Your task to perform on an android device: change alarm snooze length Image 0: 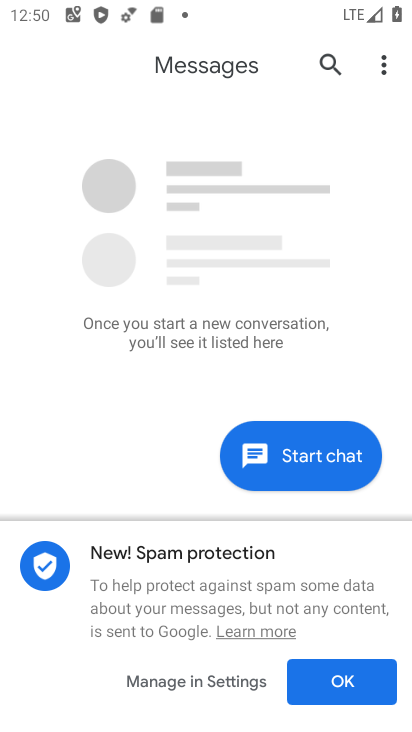
Step 0: press home button
Your task to perform on an android device: change alarm snooze length Image 1: 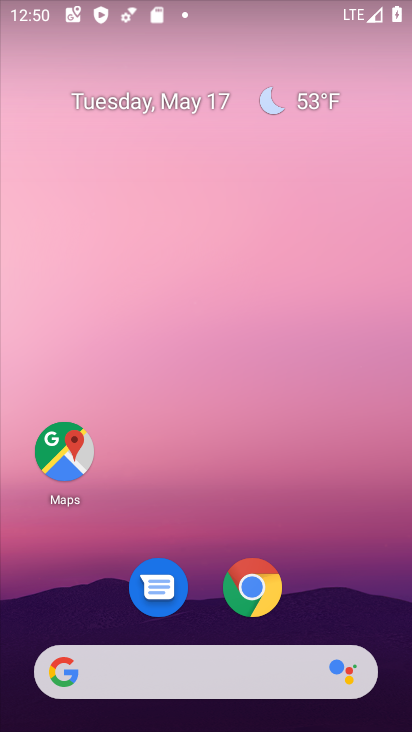
Step 1: drag from (214, 604) to (186, 63)
Your task to perform on an android device: change alarm snooze length Image 2: 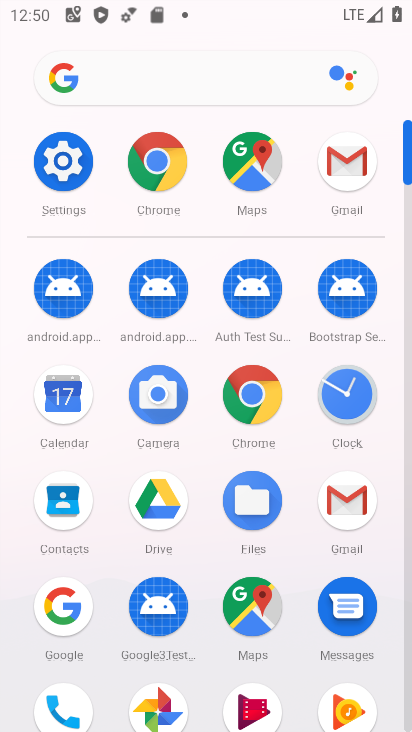
Step 2: click (336, 400)
Your task to perform on an android device: change alarm snooze length Image 3: 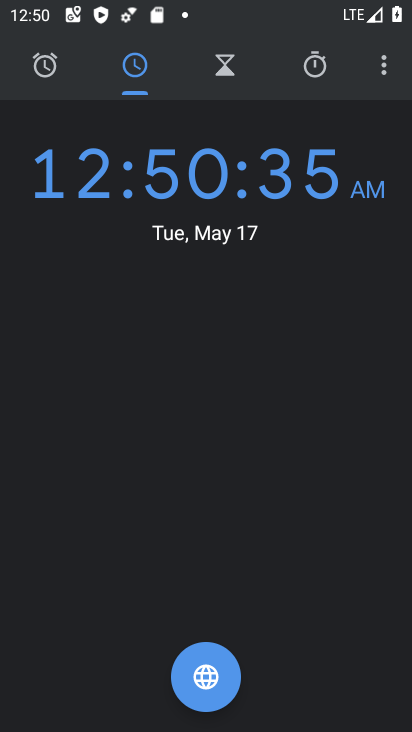
Step 3: click (376, 66)
Your task to perform on an android device: change alarm snooze length Image 4: 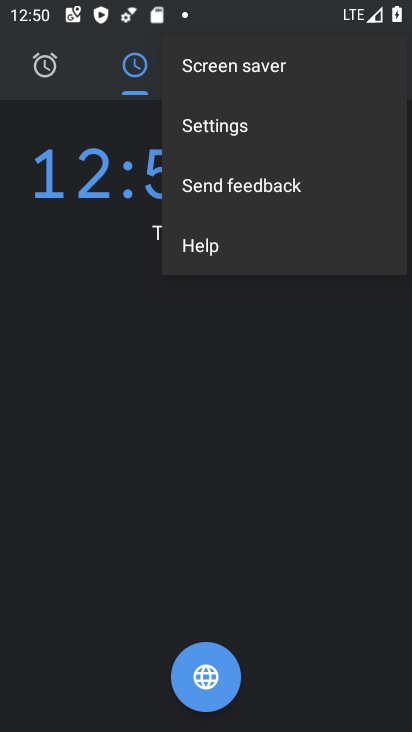
Step 4: click (245, 133)
Your task to perform on an android device: change alarm snooze length Image 5: 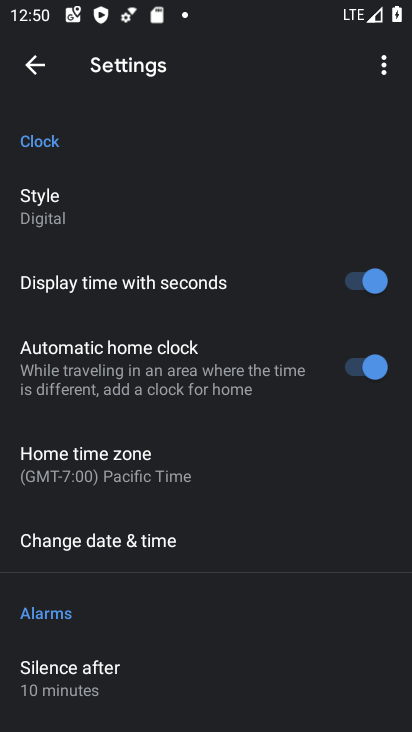
Step 5: drag from (195, 672) to (135, 193)
Your task to perform on an android device: change alarm snooze length Image 6: 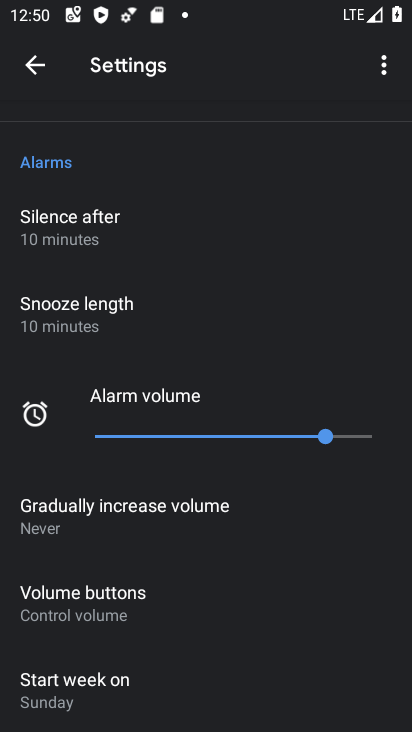
Step 6: drag from (193, 613) to (170, 179)
Your task to perform on an android device: change alarm snooze length Image 7: 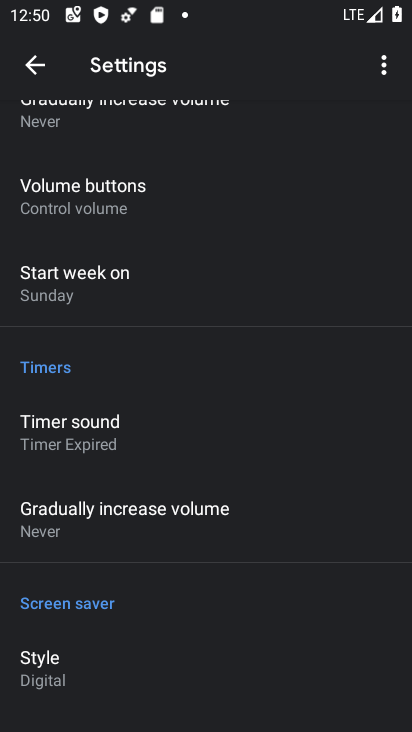
Step 7: drag from (179, 521) to (113, 116)
Your task to perform on an android device: change alarm snooze length Image 8: 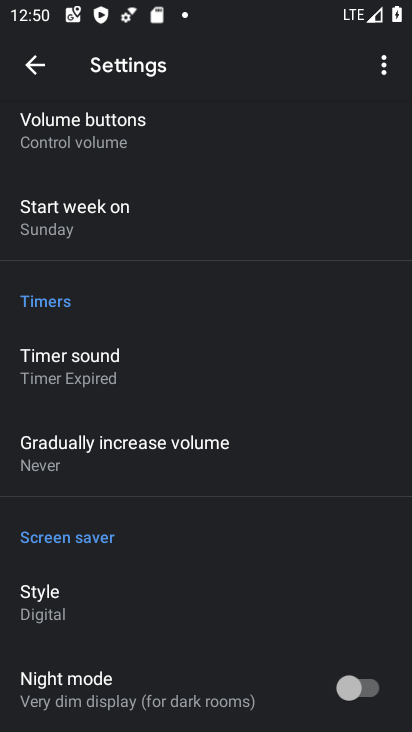
Step 8: drag from (175, 476) to (154, 67)
Your task to perform on an android device: change alarm snooze length Image 9: 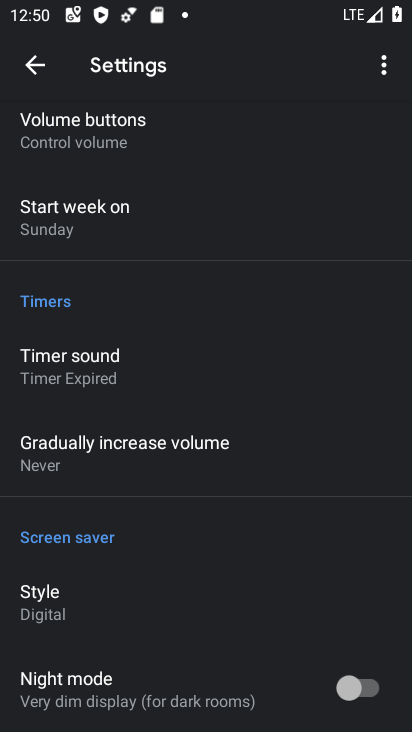
Step 9: drag from (170, 301) to (194, 601)
Your task to perform on an android device: change alarm snooze length Image 10: 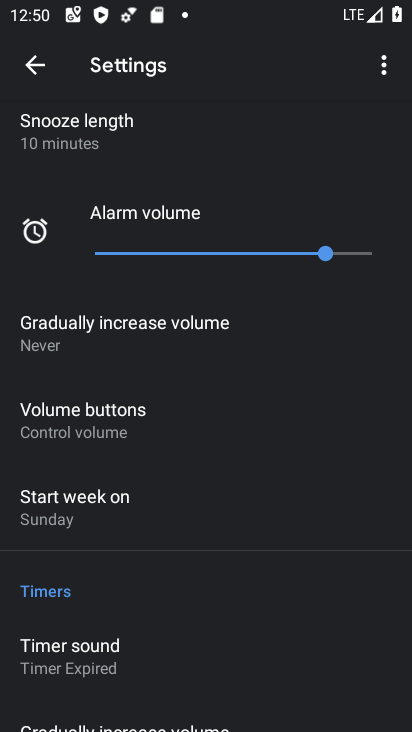
Step 10: click (189, 126)
Your task to perform on an android device: change alarm snooze length Image 11: 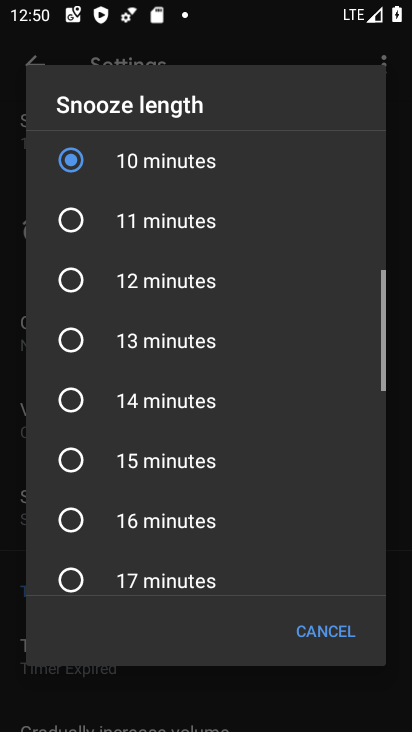
Step 11: click (170, 238)
Your task to perform on an android device: change alarm snooze length Image 12: 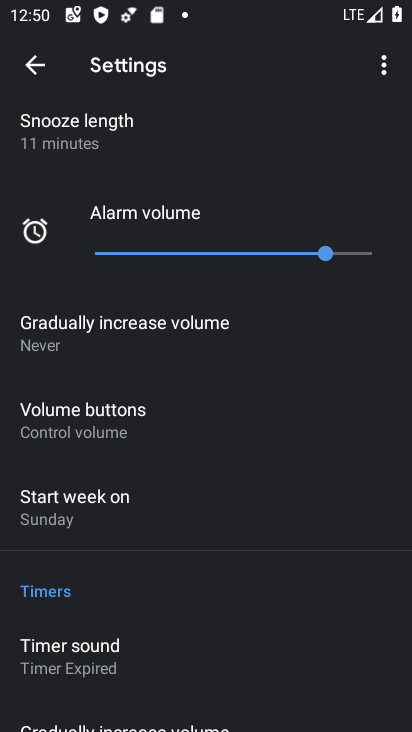
Step 12: task complete